Your task to perform on an android device: find snoozed emails in the gmail app Image 0: 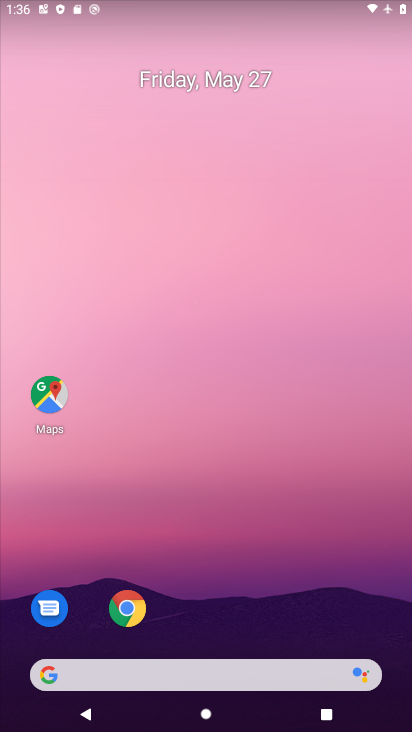
Step 0: press home button
Your task to perform on an android device: find snoozed emails in the gmail app Image 1: 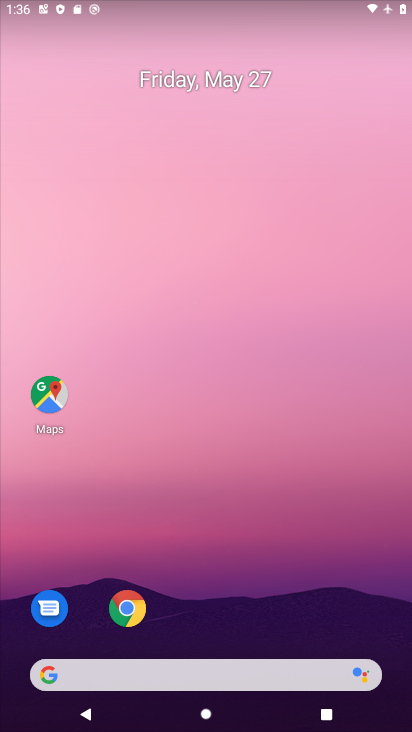
Step 1: drag from (117, 671) to (254, 205)
Your task to perform on an android device: find snoozed emails in the gmail app Image 2: 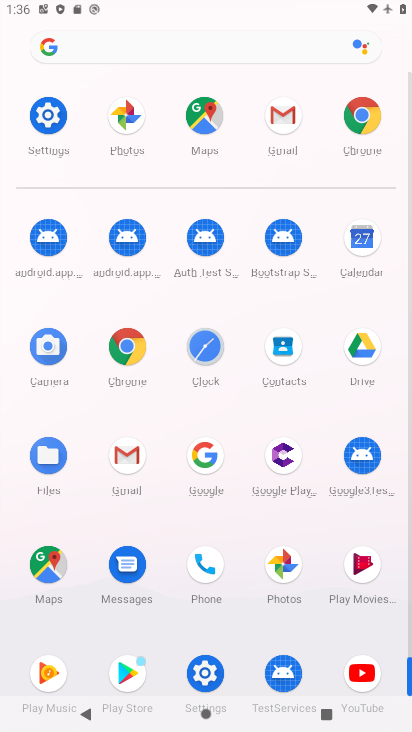
Step 2: click (285, 125)
Your task to perform on an android device: find snoozed emails in the gmail app Image 3: 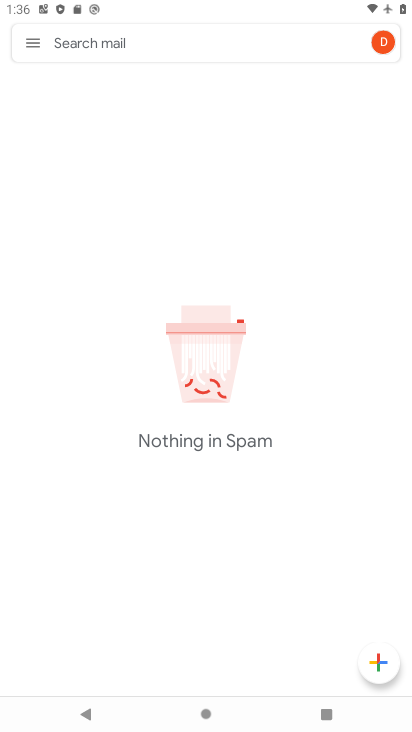
Step 3: click (26, 42)
Your task to perform on an android device: find snoozed emails in the gmail app Image 4: 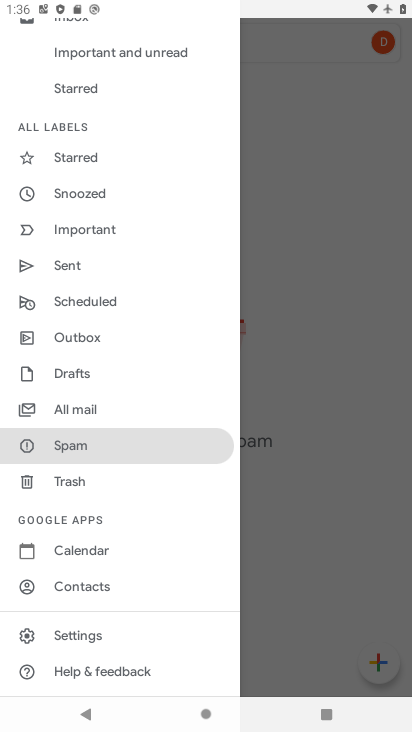
Step 4: click (79, 196)
Your task to perform on an android device: find snoozed emails in the gmail app Image 5: 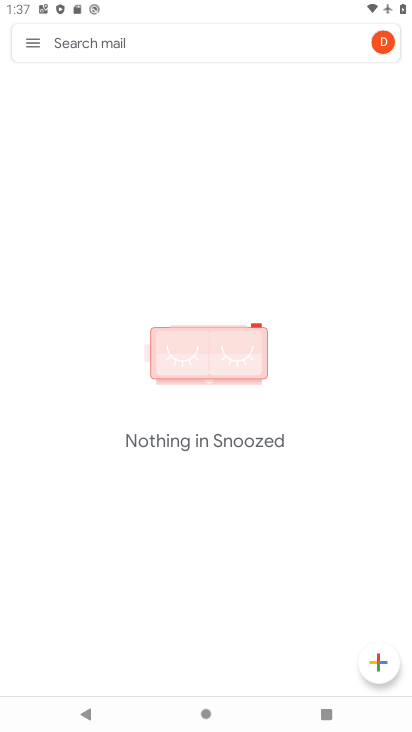
Step 5: task complete